Your task to perform on an android device: Open privacy settings Image 0: 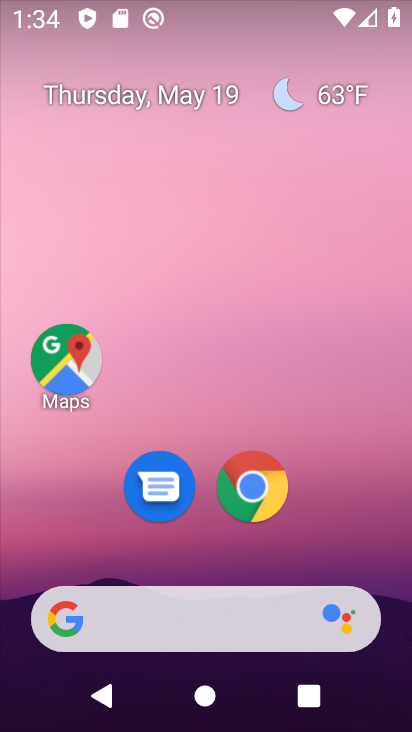
Step 0: drag from (324, 418) to (215, 36)
Your task to perform on an android device: Open privacy settings Image 1: 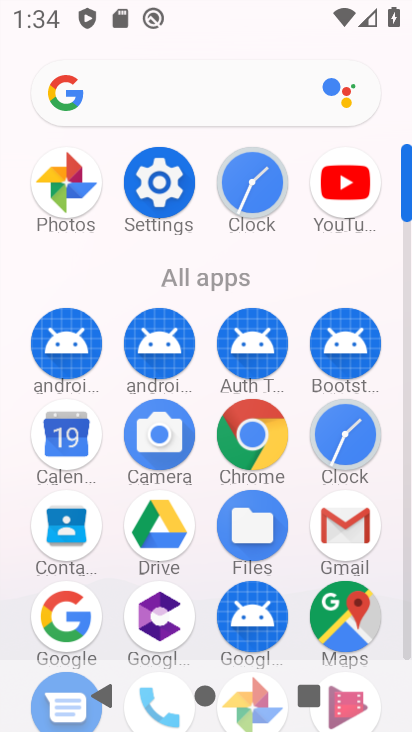
Step 1: click (164, 204)
Your task to perform on an android device: Open privacy settings Image 2: 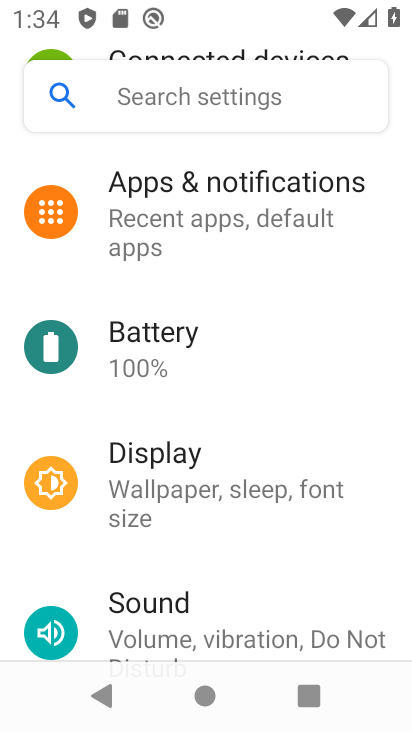
Step 2: drag from (271, 596) to (234, 66)
Your task to perform on an android device: Open privacy settings Image 3: 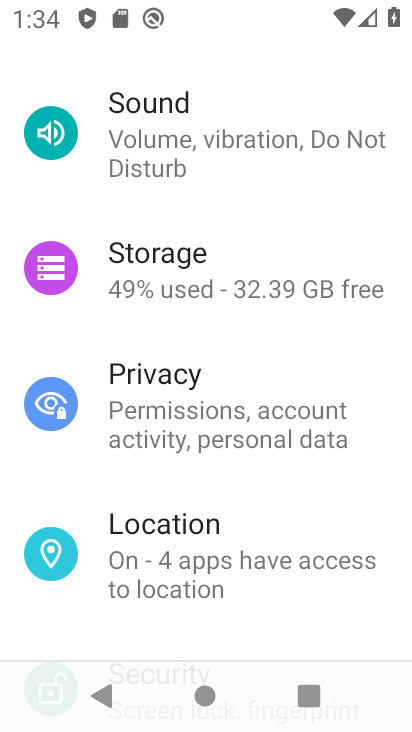
Step 3: click (213, 389)
Your task to perform on an android device: Open privacy settings Image 4: 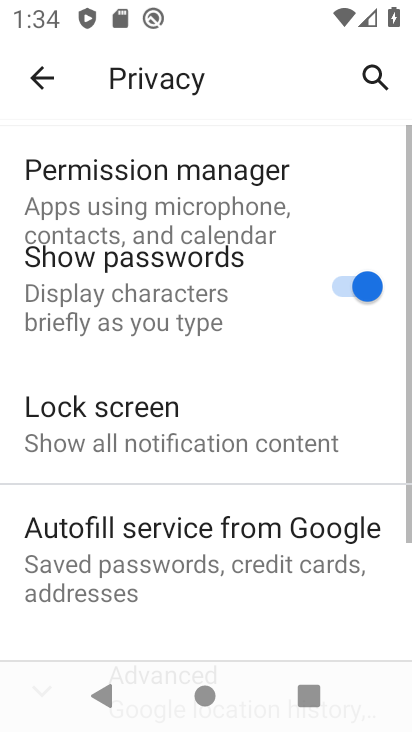
Step 4: task complete